Your task to perform on an android device: See recent photos Image 0: 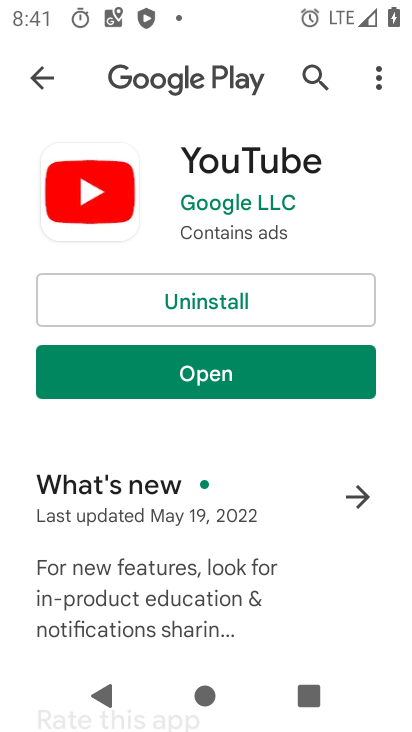
Step 0: press home button
Your task to perform on an android device: See recent photos Image 1: 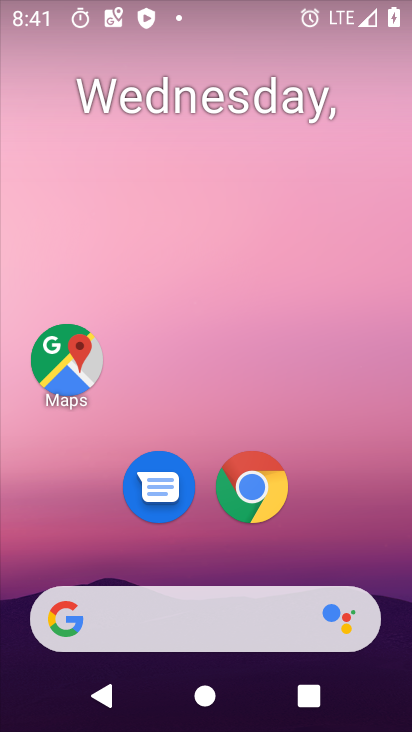
Step 1: drag from (379, 577) to (306, 10)
Your task to perform on an android device: See recent photos Image 2: 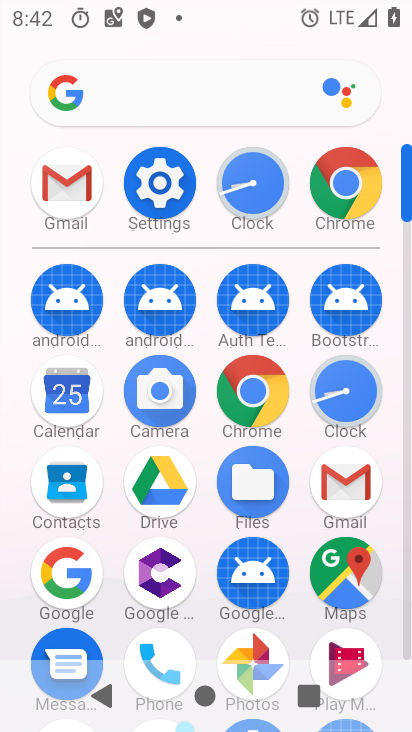
Step 2: click (406, 594)
Your task to perform on an android device: See recent photos Image 3: 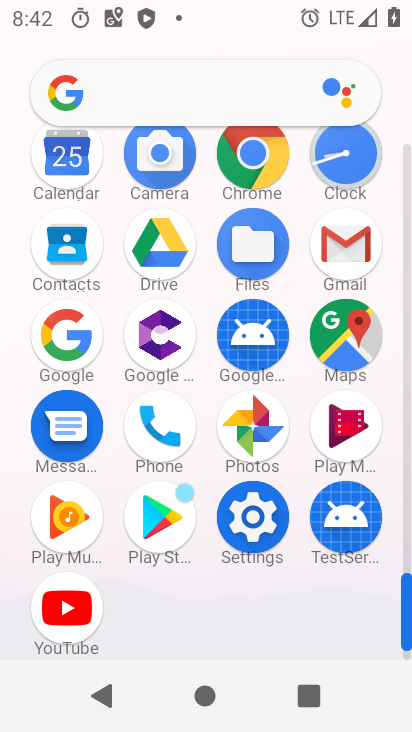
Step 3: click (262, 428)
Your task to perform on an android device: See recent photos Image 4: 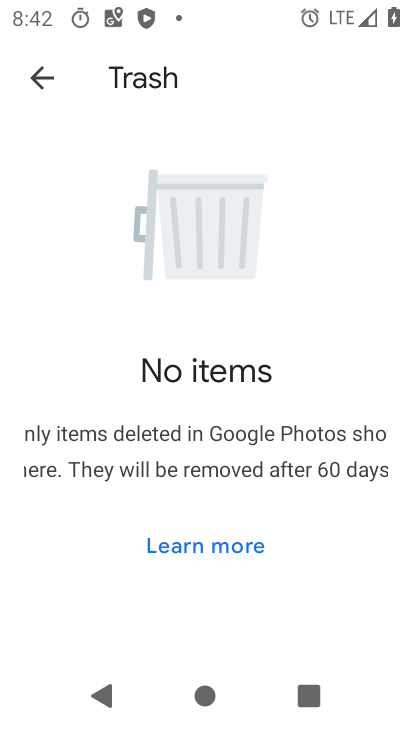
Step 4: click (33, 87)
Your task to perform on an android device: See recent photos Image 5: 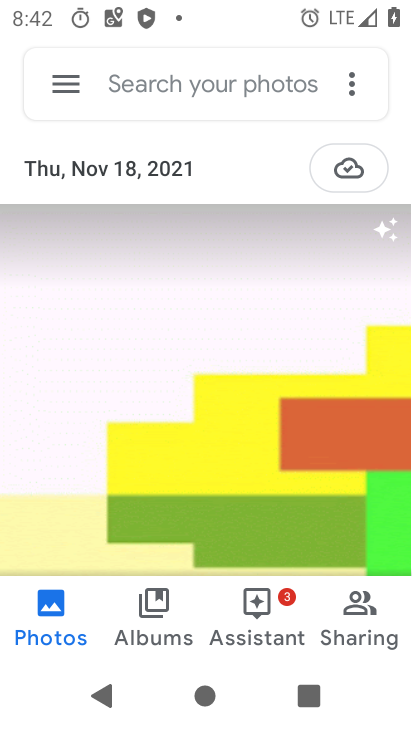
Step 5: task complete